Your task to perform on an android device: Open Maps and search for coffee Image 0: 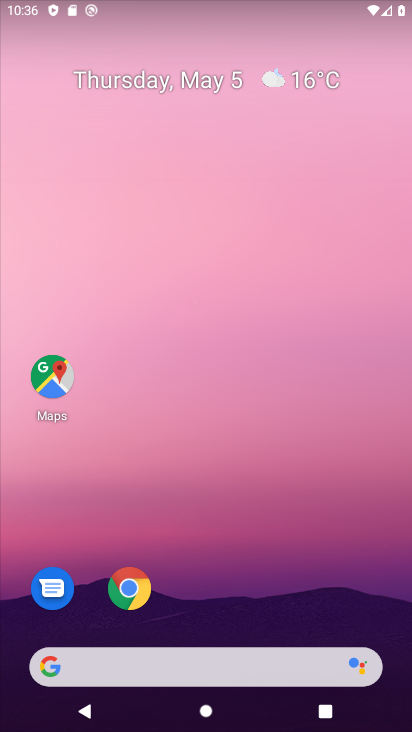
Step 0: click (49, 373)
Your task to perform on an android device: Open Maps and search for coffee Image 1: 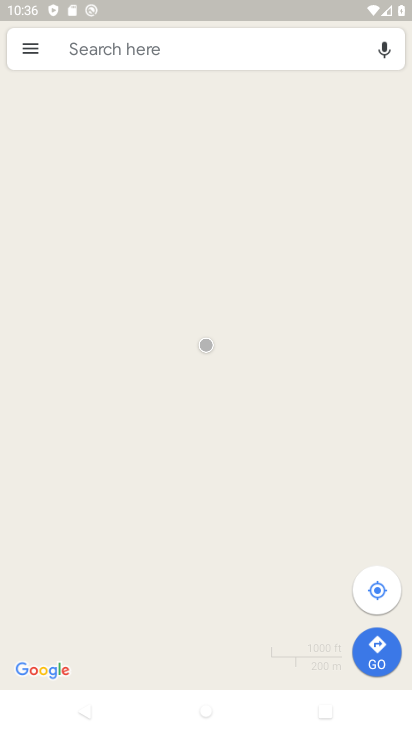
Step 1: click (180, 50)
Your task to perform on an android device: Open Maps and search for coffee Image 2: 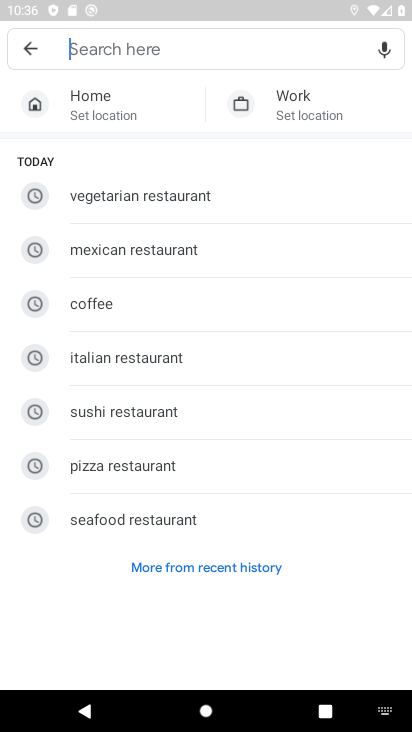
Step 2: type "coffee"
Your task to perform on an android device: Open Maps and search for coffee Image 3: 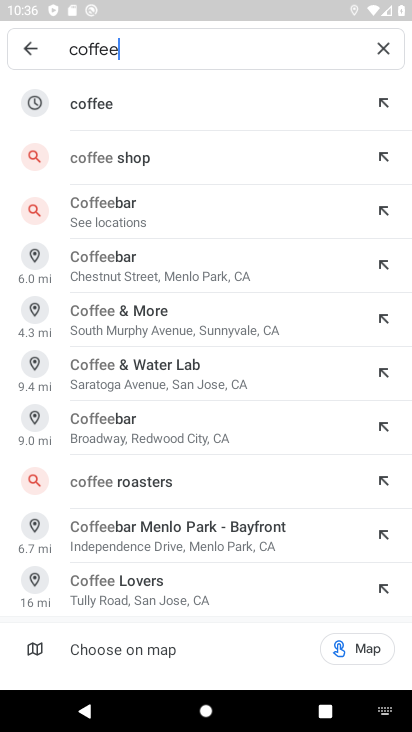
Step 3: click (137, 102)
Your task to perform on an android device: Open Maps and search for coffee Image 4: 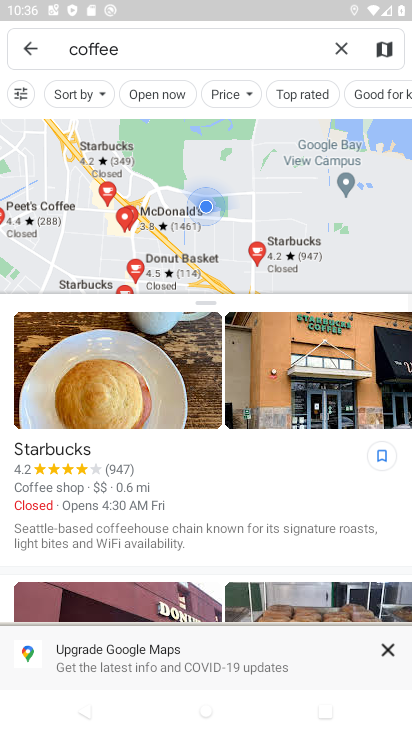
Step 4: task complete